Your task to perform on an android device: Clear all items from cart on bestbuy.com. Add "usb-c to usb-a" to the cart on bestbuy.com Image 0: 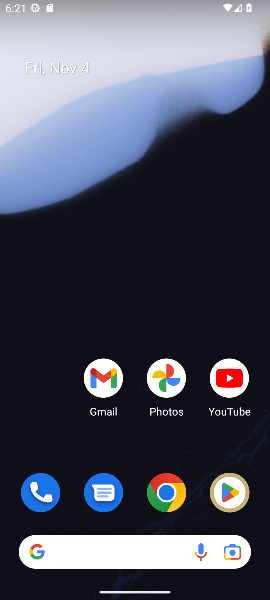
Step 0: drag from (138, 445) to (172, 1)
Your task to perform on an android device: Clear all items from cart on bestbuy.com. Add "usb-c to usb-a" to the cart on bestbuy.com Image 1: 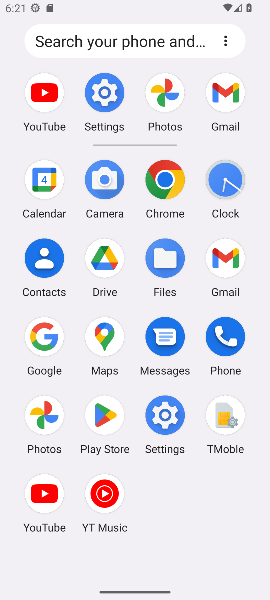
Step 1: click (167, 183)
Your task to perform on an android device: Clear all items from cart on bestbuy.com. Add "usb-c to usb-a" to the cart on bestbuy.com Image 2: 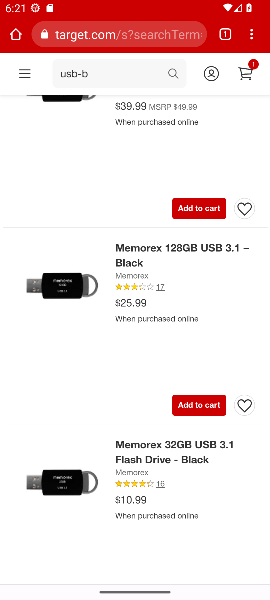
Step 2: click (145, 34)
Your task to perform on an android device: Clear all items from cart on bestbuy.com. Add "usb-c to usb-a" to the cart on bestbuy.com Image 3: 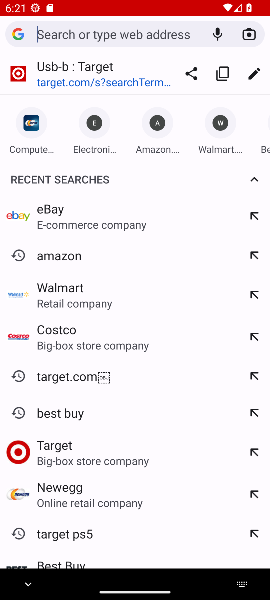
Step 3: type "bestbuy.com"
Your task to perform on an android device: Clear all items from cart on bestbuy.com. Add "usb-c to usb-a" to the cart on bestbuy.com Image 4: 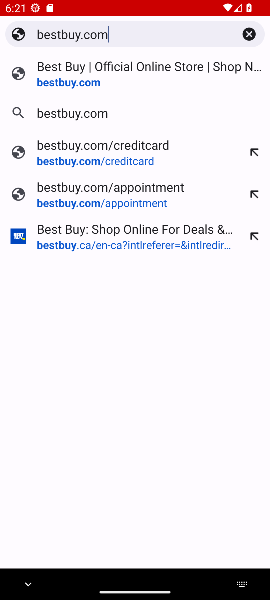
Step 4: press enter
Your task to perform on an android device: Clear all items from cart on bestbuy.com. Add "usb-c to usb-a" to the cart on bestbuy.com Image 5: 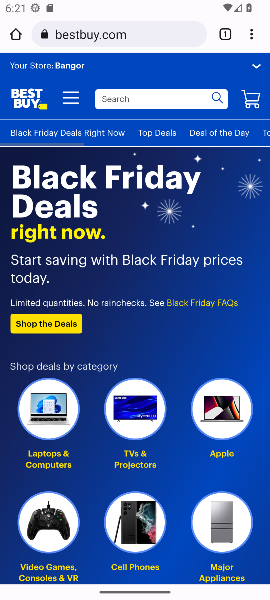
Step 5: click (247, 101)
Your task to perform on an android device: Clear all items from cart on bestbuy.com. Add "usb-c to usb-a" to the cart on bestbuy.com Image 6: 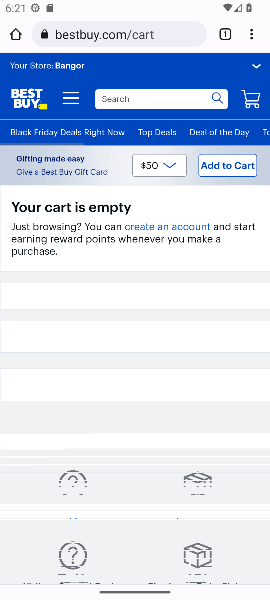
Step 6: click (191, 99)
Your task to perform on an android device: Clear all items from cart on bestbuy.com. Add "usb-c to usb-a" to the cart on bestbuy.com Image 7: 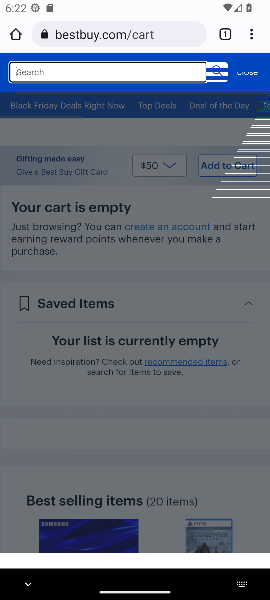
Step 7: type "usb-c to usb-a"
Your task to perform on an android device: Clear all items from cart on bestbuy.com. Add "usb-c to usb-a" to the cart on bestbuy.com Image 8: 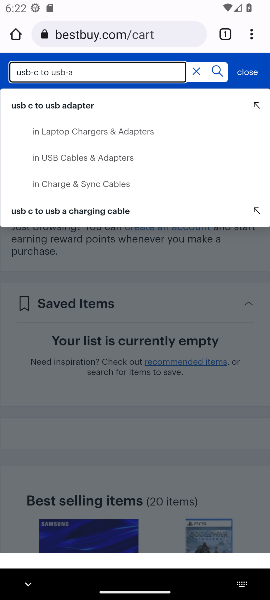
Step 8: press enter
Your task to perform on an android device: Clear all items from cart on bestbuy.com. Add "usb-c to usb-a" to the cart on bestbuy.com Image 9: 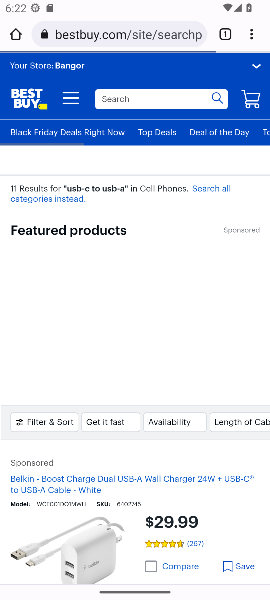
Step 9: drag from (153, 505) to (195, 163)
Your task to perform on an android device: Clear all items from cart on bestbuy.com. Add "usb-c to usb-a" to the cart on bestbuy.com Image 10: 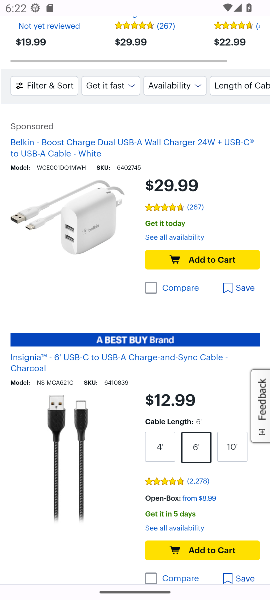
Step 10: drag from (185, 479) to (174, 317)
Your task to perform on an android device: Clear all items from cart on bestbuy.com. Add "usb-c to usb-a" to the cart on bestbuy.com Image 11: 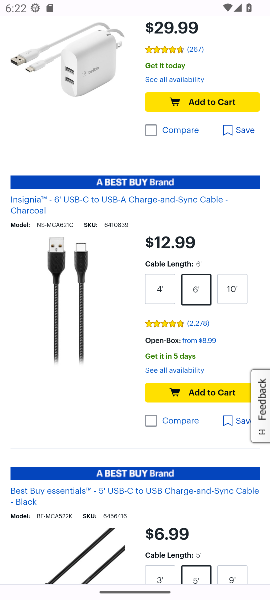
Step 11: click (196, 396)
Your task to perform on an android device: Clear all items from cart on bestbuy.com. Add "usb-c to usb-a" to the cart on bestbuy.com Image 12: 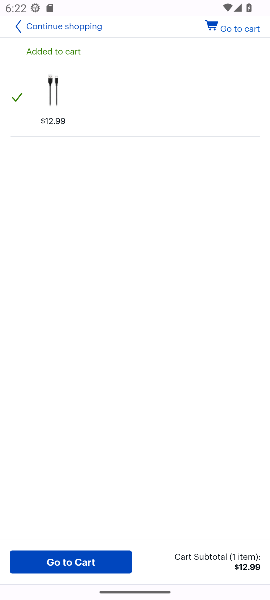
Step 12: task complete